Your task to perform on an android device: turn off translation in the chrome app Image 0: 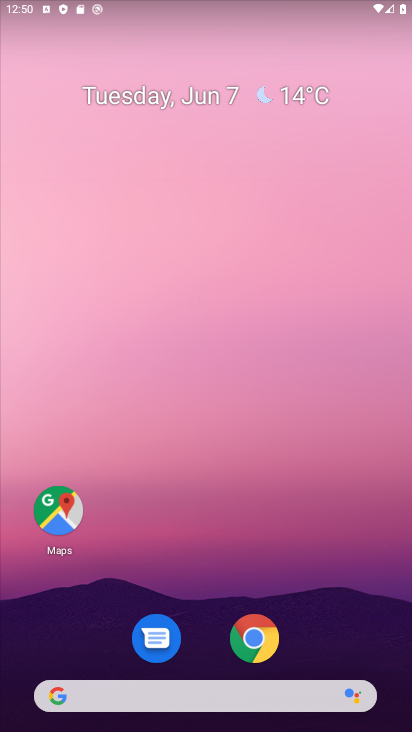
Step 0: drag from (213, 506) to (243, 238)
Your task to perform on an android device: turn off translation in the chrome app Image 1: 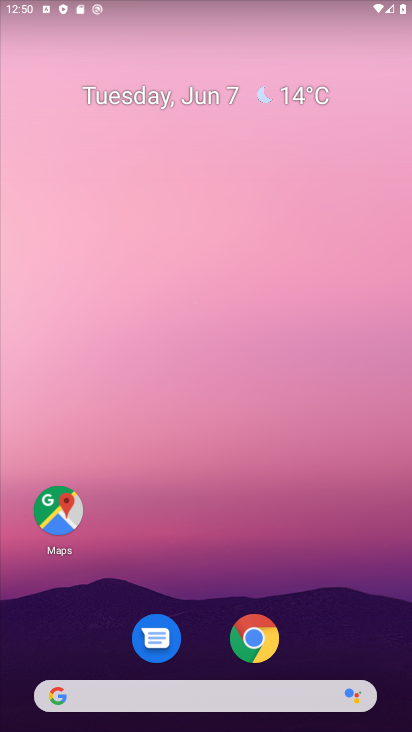
Step 1: drag from (210, 660) to (244, 129)
Your task to perform on an android device: turn off translation in the chrome app Image 2: 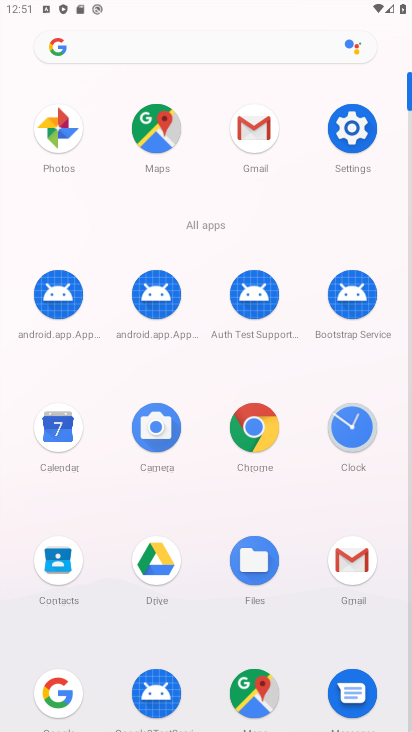
Step 2: click (259, 419)
Your task to perform on an android device: turn off translation in the chrome app Image 3: 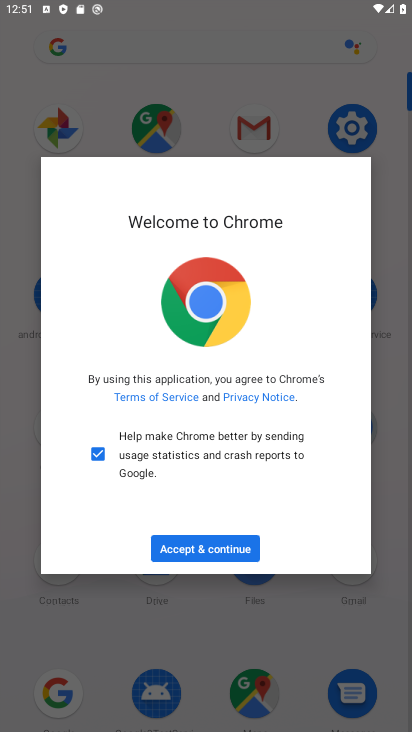
Step 3: click (209, 552)
Your task to perform on an android device: turn off translation in the chrome app Image 4: 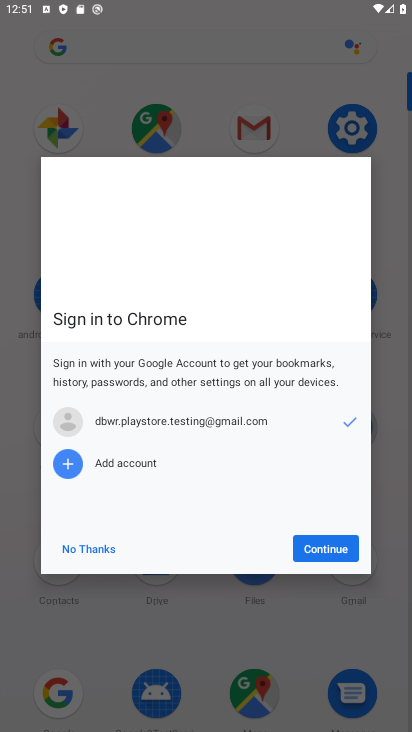
Step 4: click (342, 551)
Your task to perform on an android device: turn off translation in the chrome app Image 5: 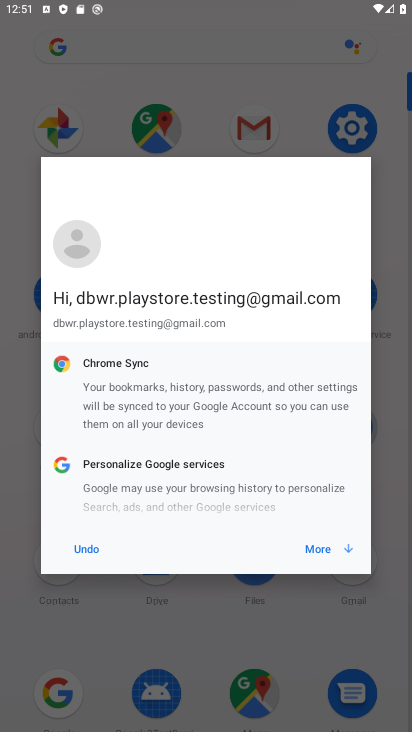
Step 5: click (320, 538)
Your task to perform on an android device: turn off translation in the chrome app Image 6: 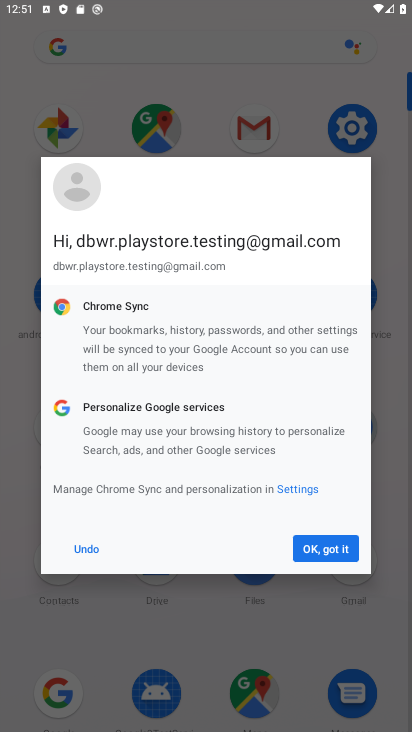
Step 6: click (319, 544)
Your task to perform on an android device: turn off translation in the chrome app Image 7: 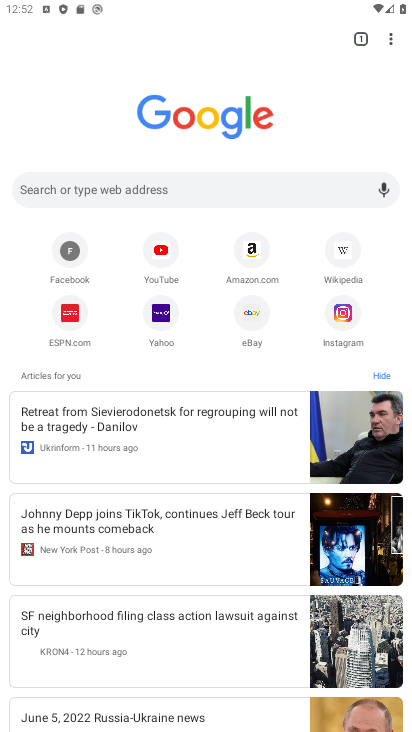
Step 7: drag from (394, 41) to (383, 4)
Your task to perform on an android device: turn off translation in the chrome app Image 8: 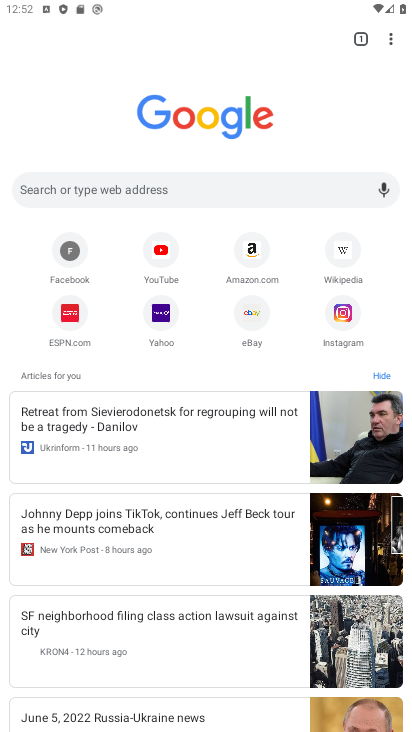
Step 8: click (391, 37)
Your task to perform on an android device: turn off translation in the chrome app Image 9: 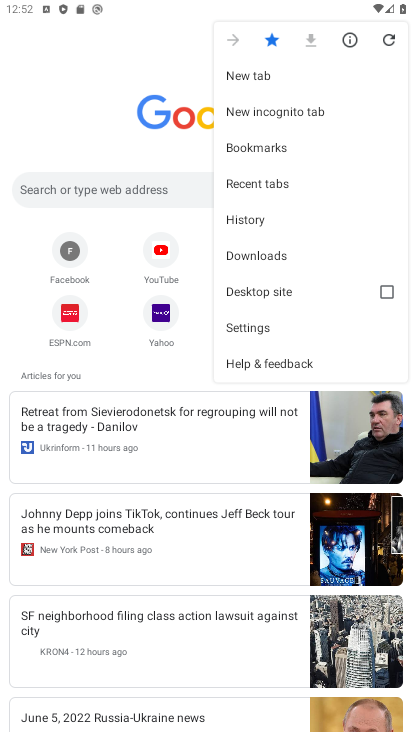
Step 9: click (248, 328)
Your task to perform on an android device: turn off translation in the chrome app Image 10: 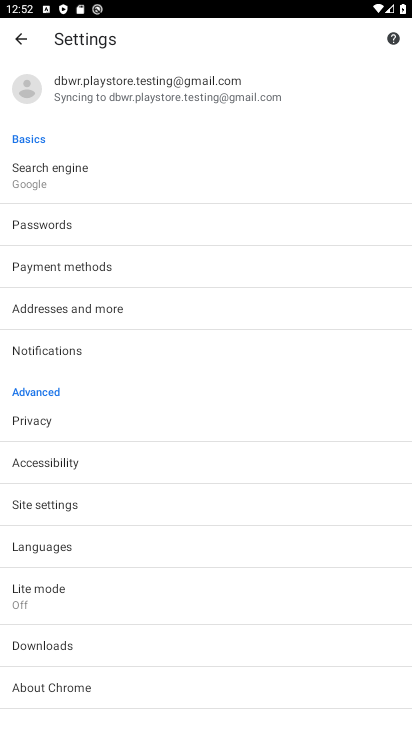
Step 10: click (81, 540)
Your task to perform on an android device: turn off translation in the chrome app Image 11: 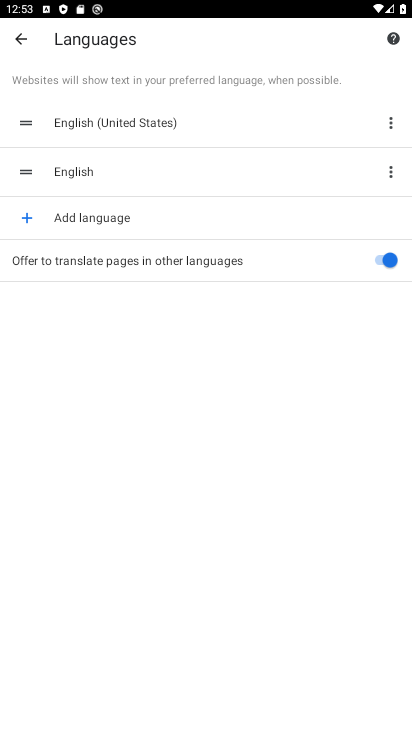
Step 11: click (387, 266)
Your task to perform on an android device: turn off translation in the chrome app Image 12: 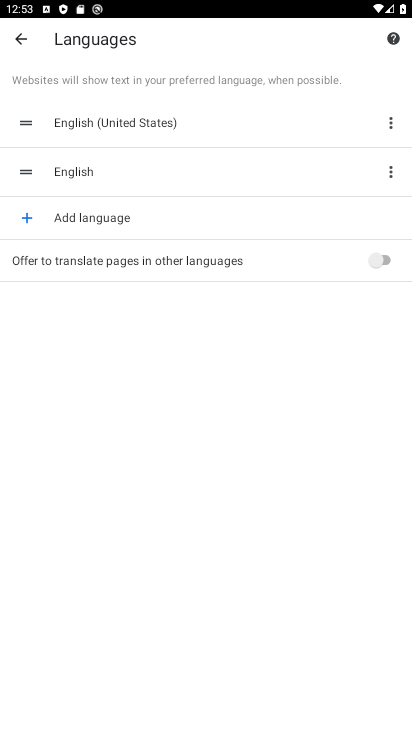
Step 12: task complete